Your task to perform on an android device: Go to Yahoo.com Image 0: 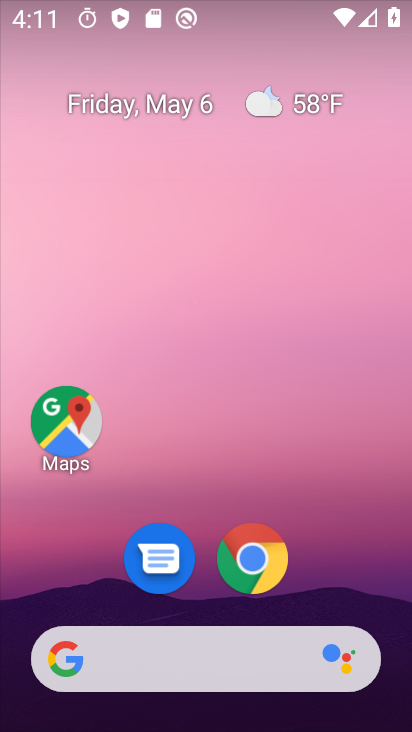
Step 0: drag from (325, 630) to (292, 92)
Your task to perform on an android device: Go to Yahoo.com Image 1: 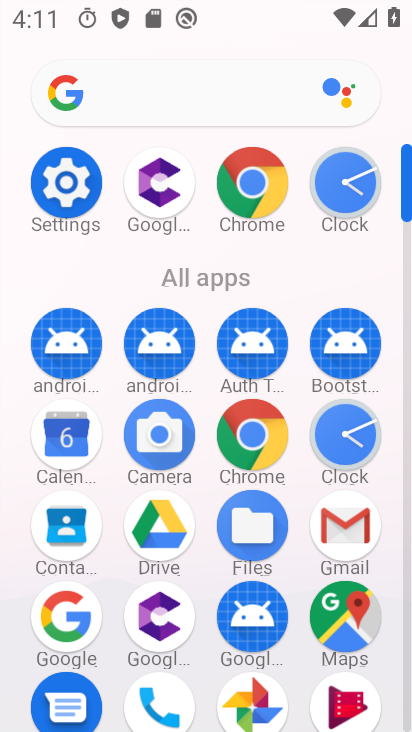
Step 1: click (255, 449)
Your task to perform on an android device: Go to Yahoo.com Image 2: 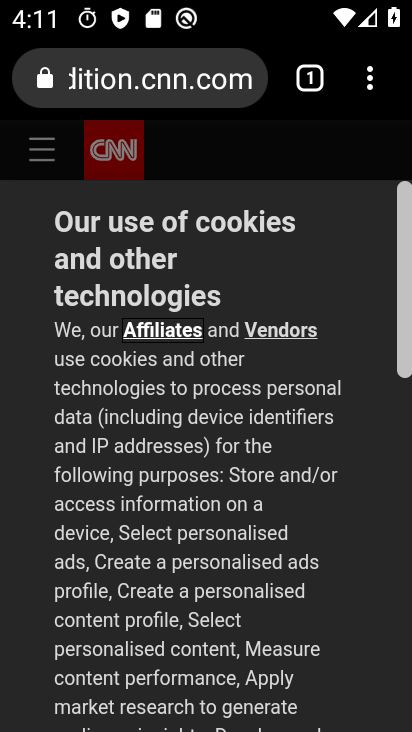
Step 2: click (232, 83)
Your task to perform on an android device: Go to Yahoo.com Image 3: 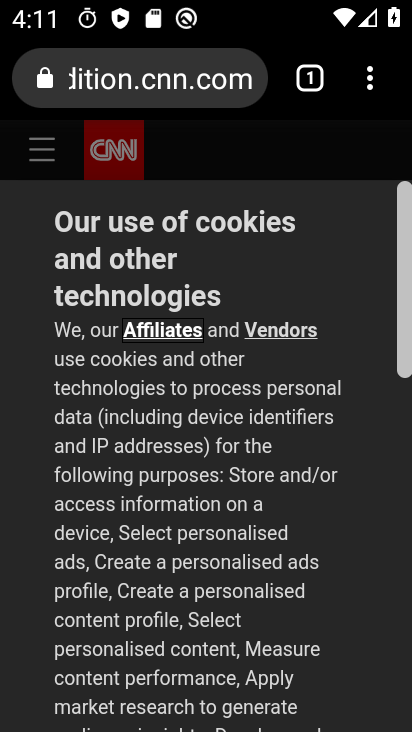
Step 3: click (233, 83)
Your task to perform on an android device: Go to Yahoo.com Image 4: 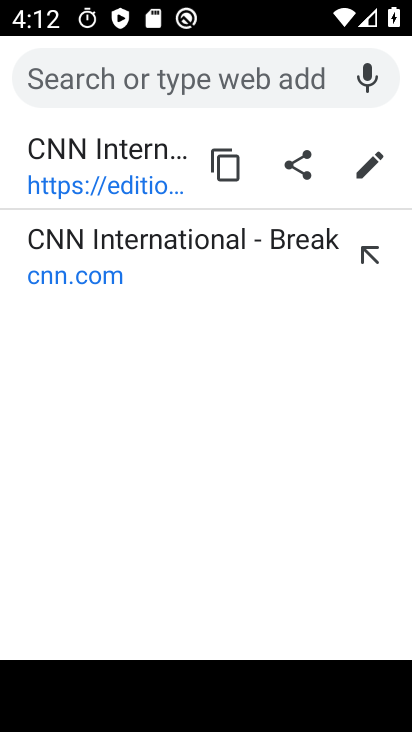
Step 4: type "yahoo.com"
Your task to perform on an android device: Go to Yahoo.com Image 5: 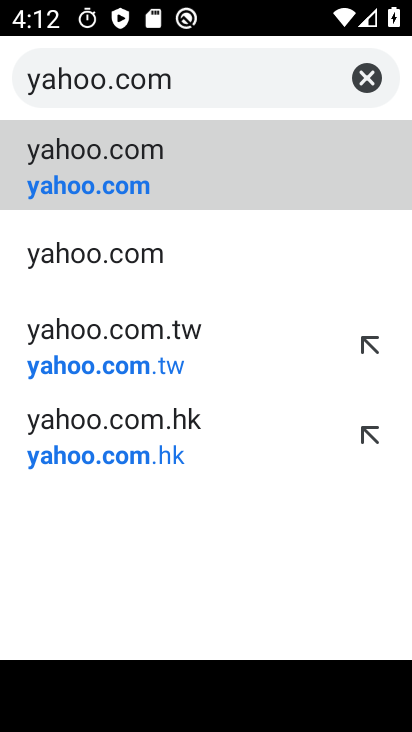
Step 5: click (98, 160)
Your task to perform on an android device: Go to Yahoo.com Image 6: 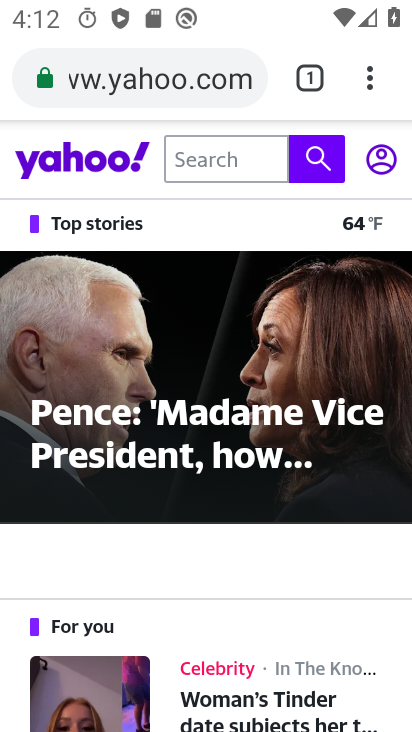
Step 6: task complete